Your task to perform on an android device: Open Youtube and go to the subscriptions tab Image 0: 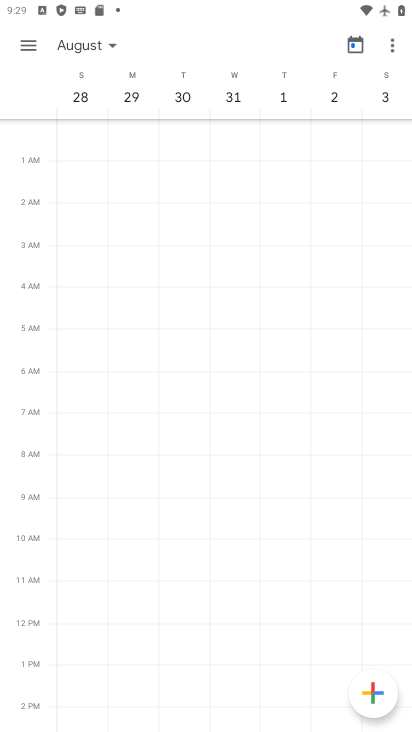
Step 0: press home button
Your task to perform on an android device: Open Youtube and go to the subscriptions tab Image 1: 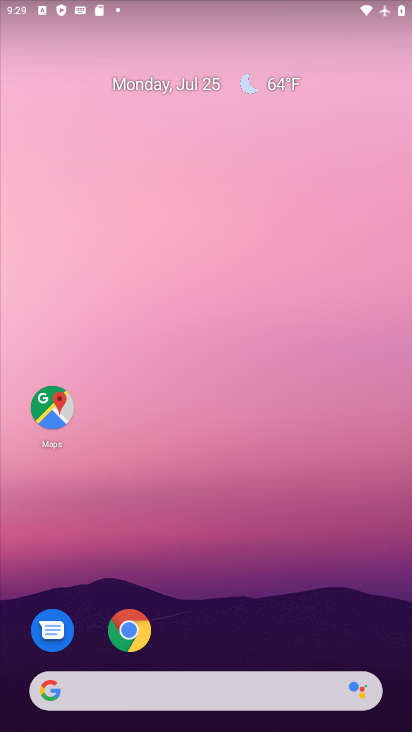
Step 1: drag from (339, 623) to (321, 107)
Your task to perform on an android device: Open Youtube and go to the subscriptions tab Image 2: 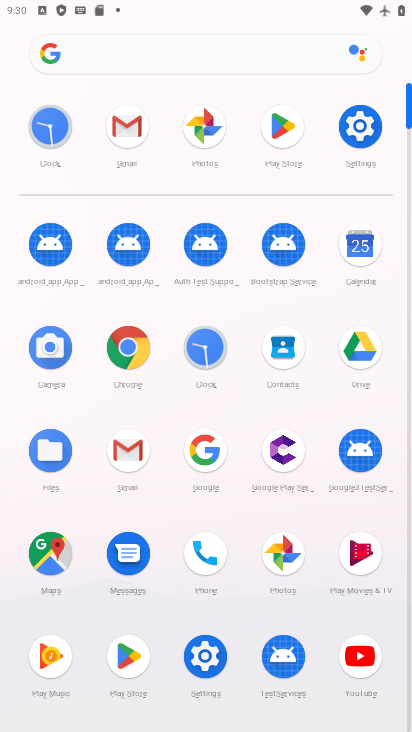
Step 2: click (356, 654)
Your task to perform on an android device: Open Youtube and go to the subscriptions tab Image 3: 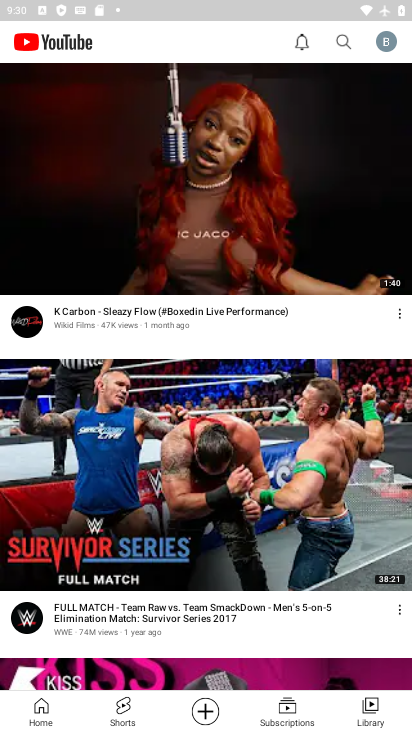
Step 3: click (287, 710)
Your task to perform on an android device: Open Youtube and go to the subscriptions tab Image 4: 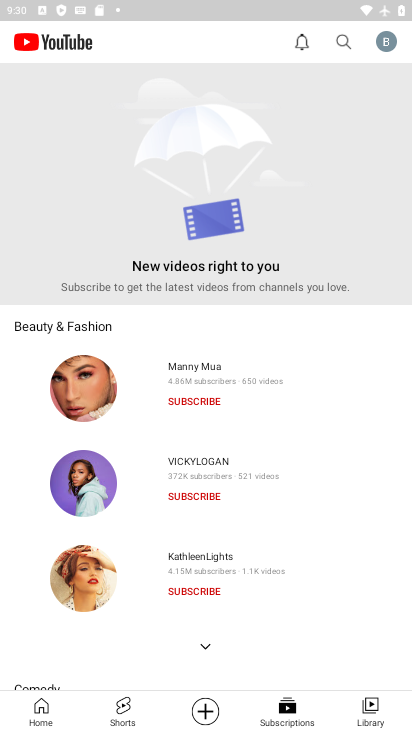
Step 4: task complete